Your task to perform on an android device: check android version Image 0: 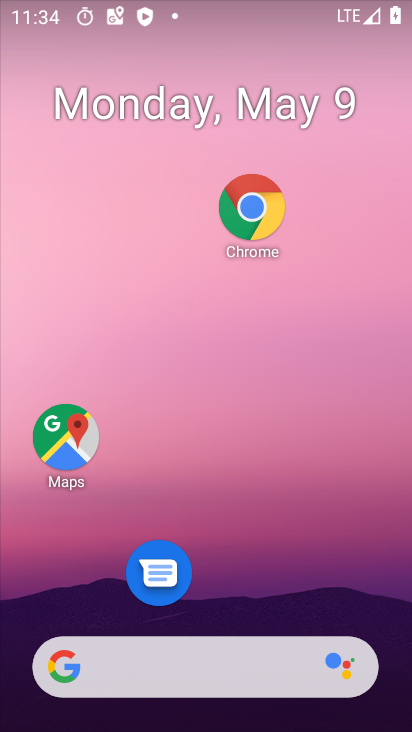
Step 0: drag from (253, 547) to (130, 43)
Your task to perform on an android device: check android version Image 1: 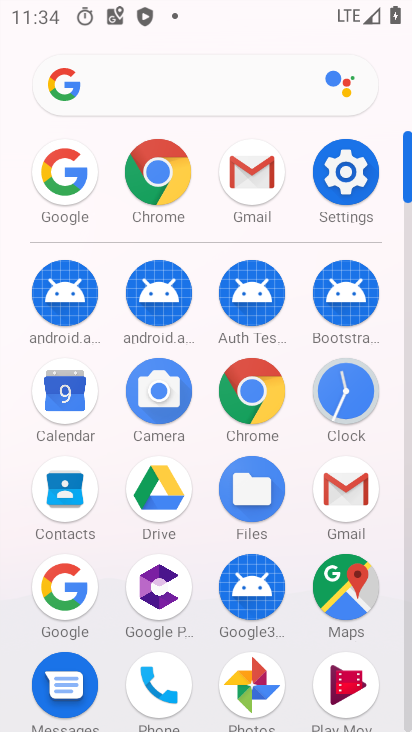
Step 1: click (357, 190)
Your task to perform on an android device: check android version Image 2: 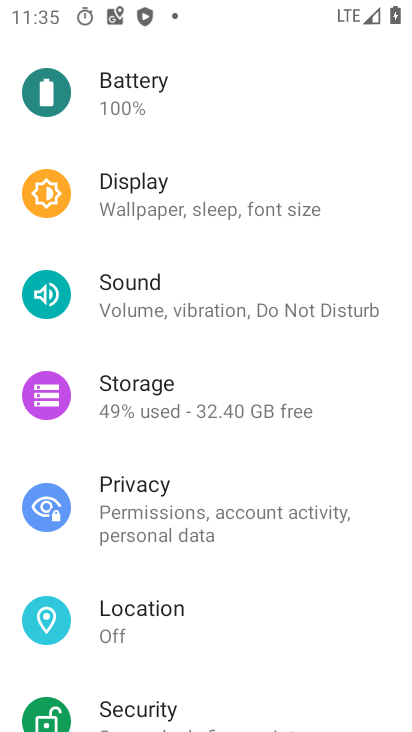
Step 2: drag from (218, 537) to (126, 163)
Your task to perform on an android device: check android version Image 3: 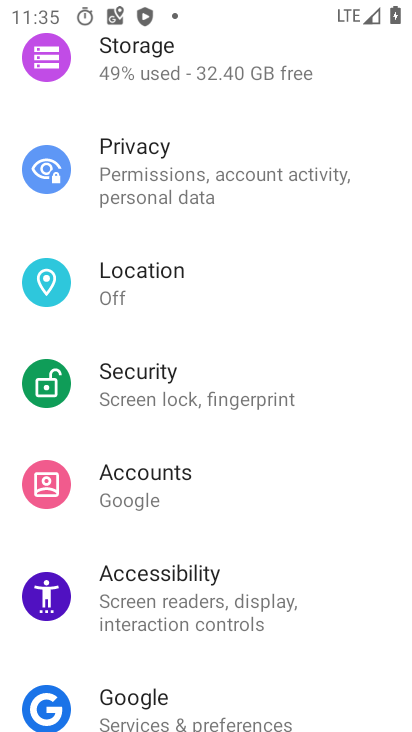
Step 3: drag from (161, 302) to (139, 209)
Your task to perform on an android device: check android version Image 4: 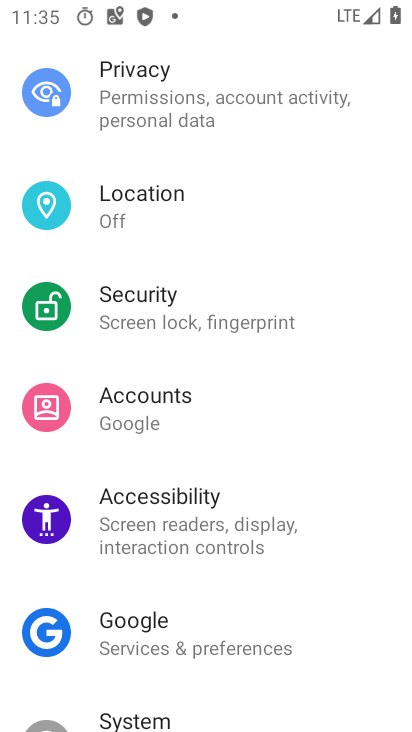
Step 4: drag from (150, 280) to (135, 231)
Your task to perform on an android device: check android version Image 5: 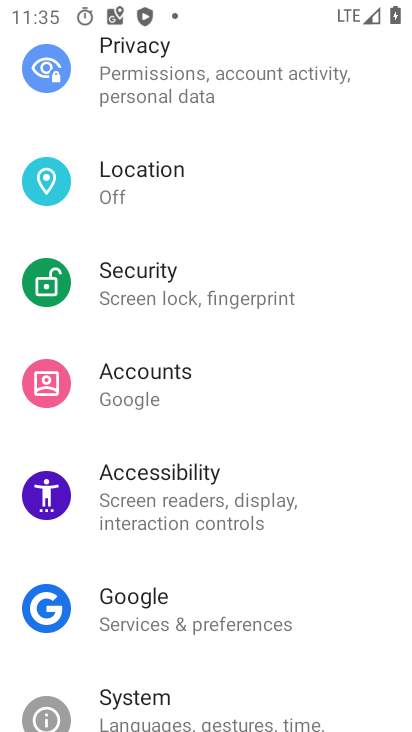
Step 5: drag from (196, 406) to (176, 122)
Your task to perform on an android device: check android version Image 6: 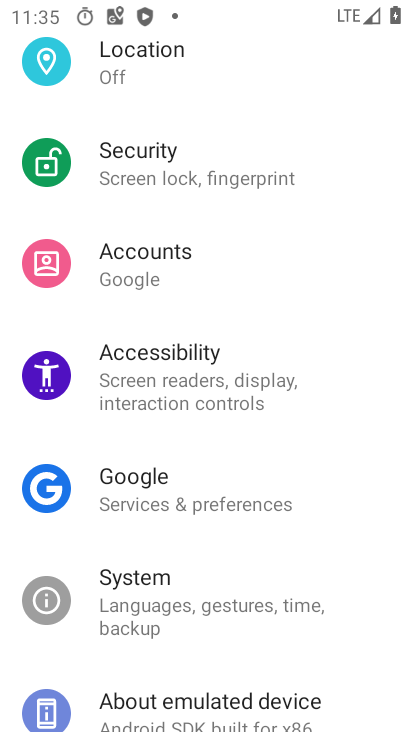
Step 6: drag from (236, 553) to (198, 189)
Your task to perform on an android device: check android version Image 7: 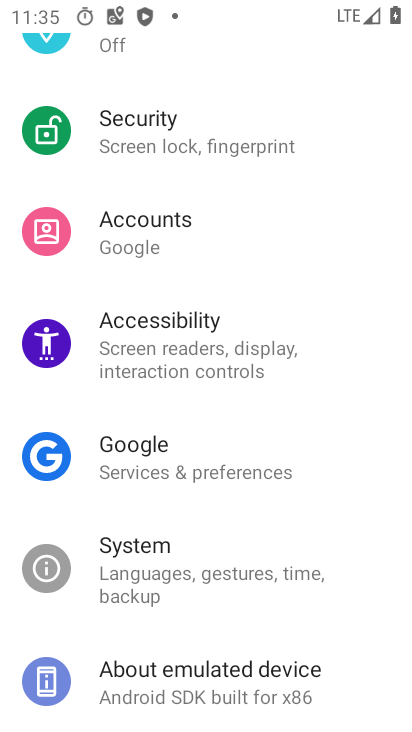
Step 7: click (210, 672)
Your task to perform on an android device: check android version Image 8: 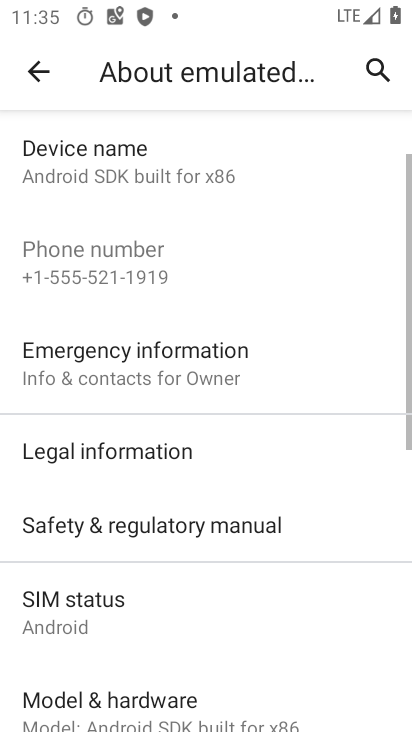
Step 8: click (195, 661)
Your task to perform on an android device: check android version Image 9: 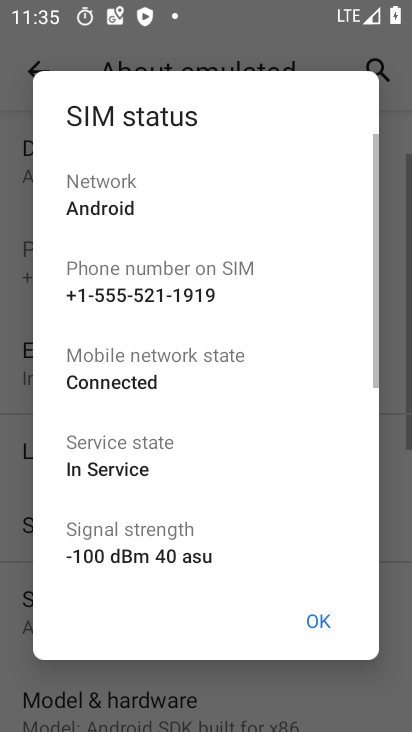
Step 9: task complete